Your task to perform on an android device: Show me popular videos on Youtube Image 0: 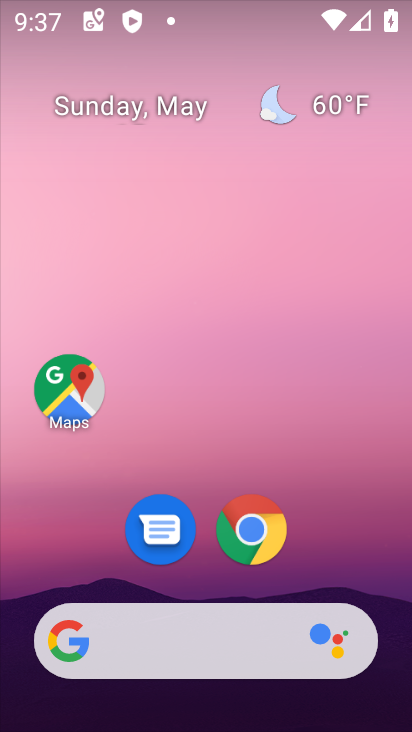
Step 0: drag from (390, 496) to (380, 95)
Your task to perform on an android device: Show me popular videos on Youtube Image 1: 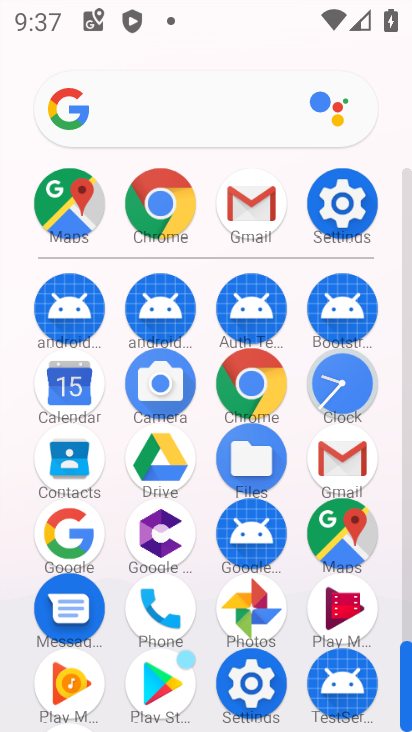
Step 1: drag from (390, 607) to (394, 367)
Your task to perform on an android device: Show me popular videos on Youtube Image 2: 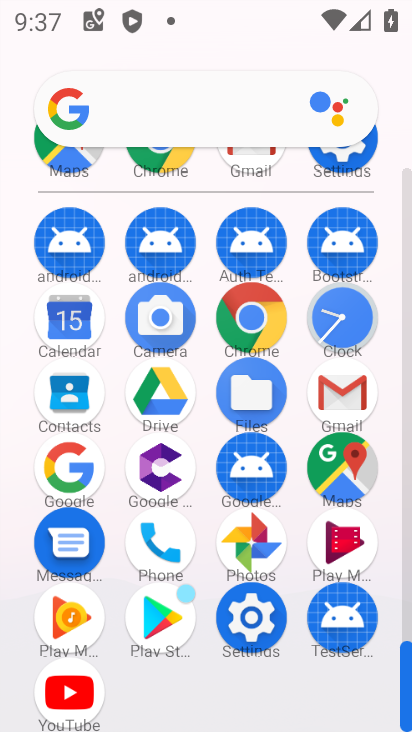
Step 2: click (76, 689)
Your task to perform on an android device: Show me popular videos on Youtube Image 3: 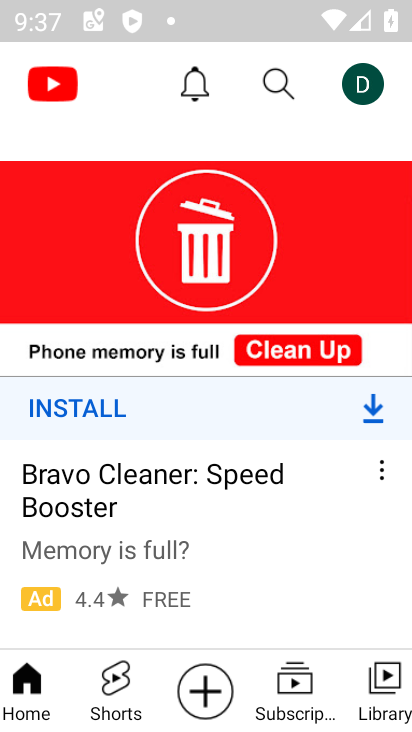
Step 3: task complete